Your task to perform on an android device: Do I have any events this weekend? Image 0: 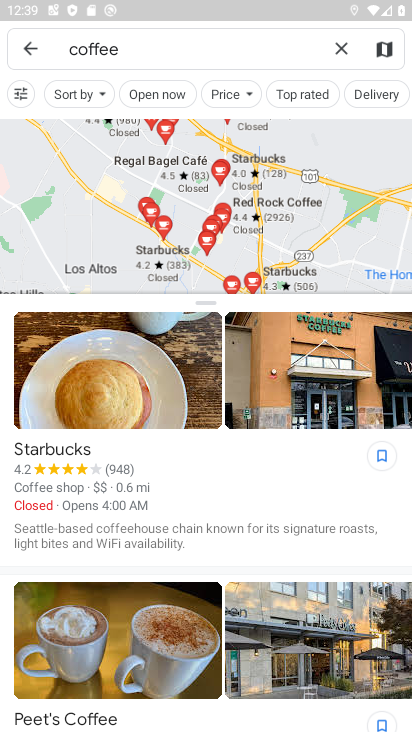
Step 0: press home button
Your task to perform on an android device: Do I have any events this weekend? Image 1: 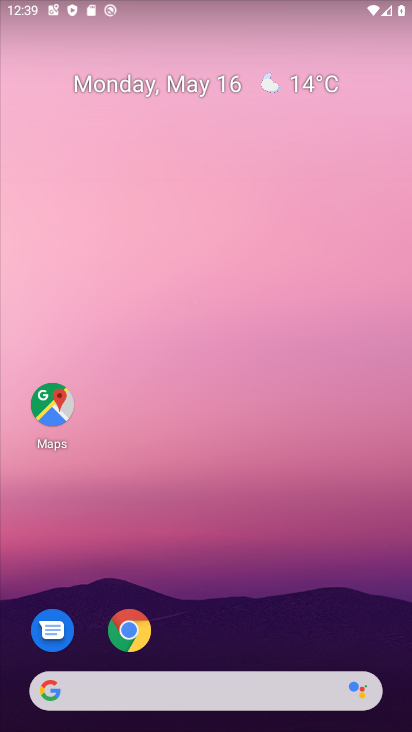
Step 1: drag from (260, 629) to (259, 85)
Your task to perform on an android device: Do I have any events this weekend? Image 2: 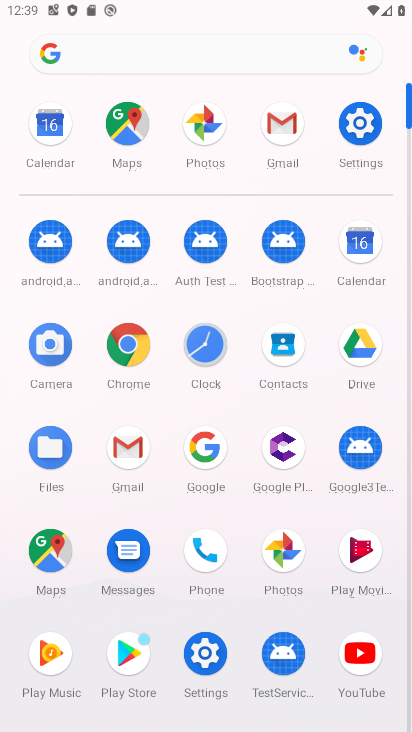
Step 2: click (365, 231)
Your task to perform on an android device: Do I have any events this weekend? Image 3: 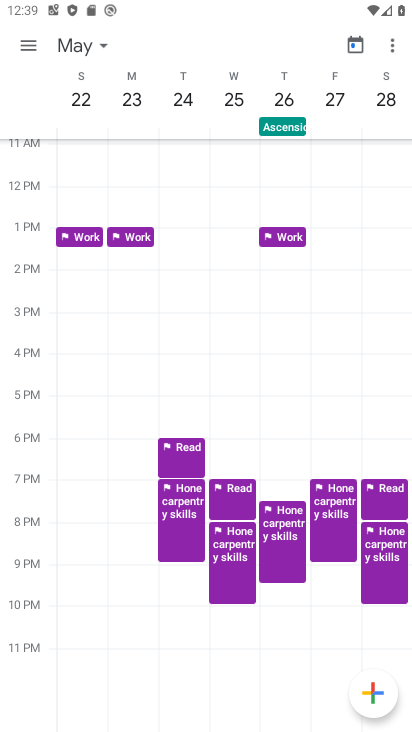
Step 3: click (26, 48)
Your task to perform on an android device: Do I have any events this weekend? Image 4: 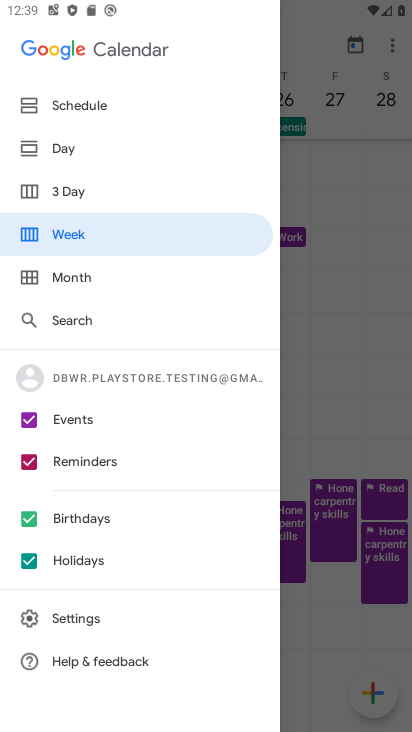
Step 4: click (116, 185)
Your task to perform on an android device: Do I have any events this weekend? Image 5: 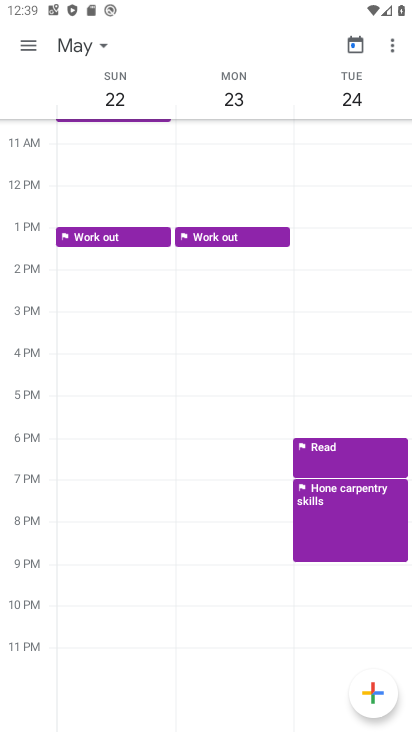
Step 5: click (87, 43)
Your task to perform on an android device: Do I have any events this weekend? Image 6: 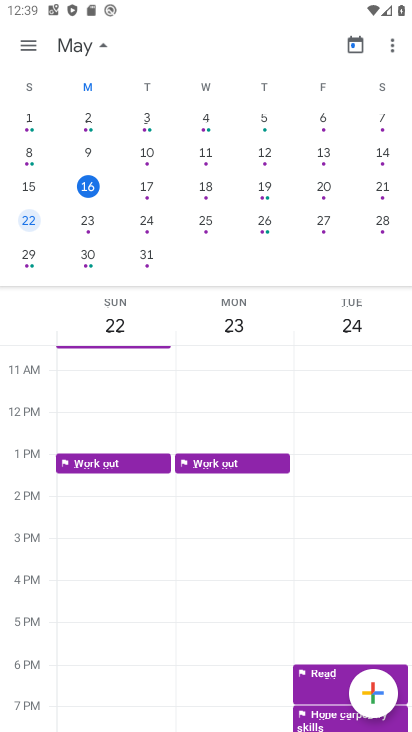
Step 6: click (334, 193)
Your task to perform on an android device: Do I have any events this weekend? Image 7: 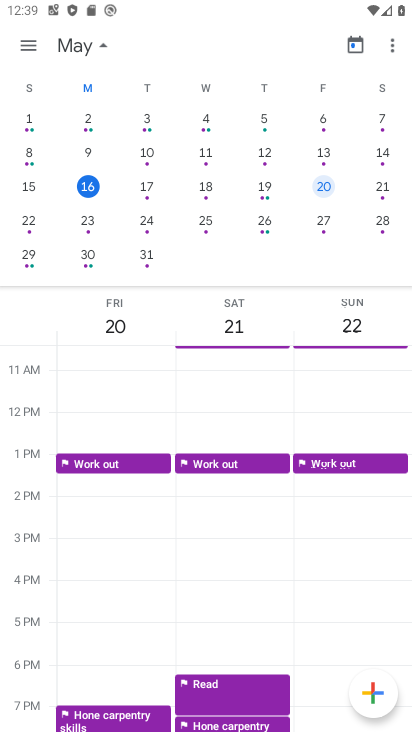
Step 7: task complete